Your task to perform on an android device: uninstall "TextNow: Call + Text Unlimited" Image 0: 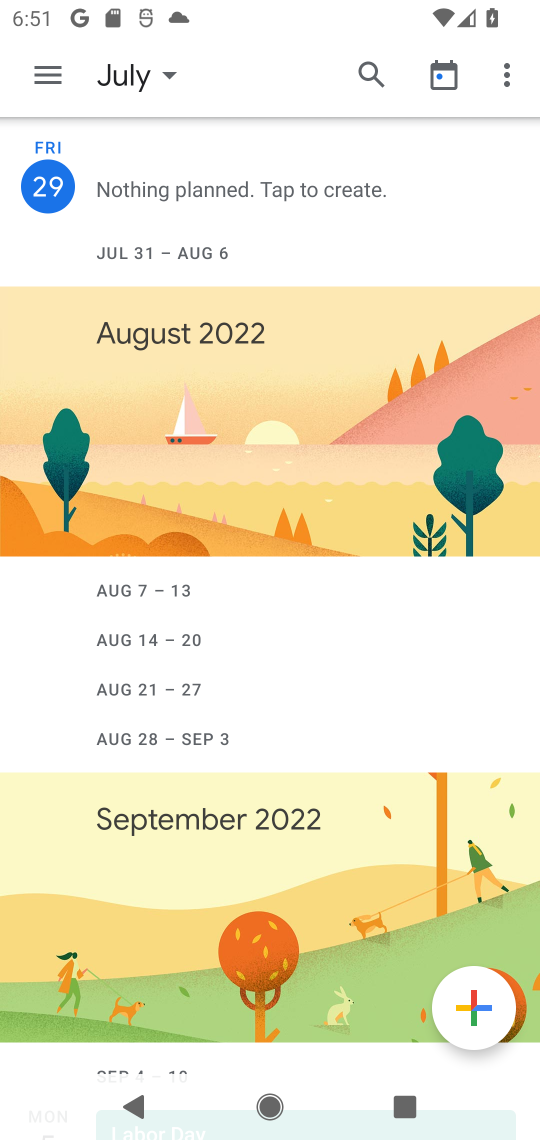
Step 0: press home button
Your task to perform on an android device: uninstall "TextNow: Call + Text Unlimited" Image 1: 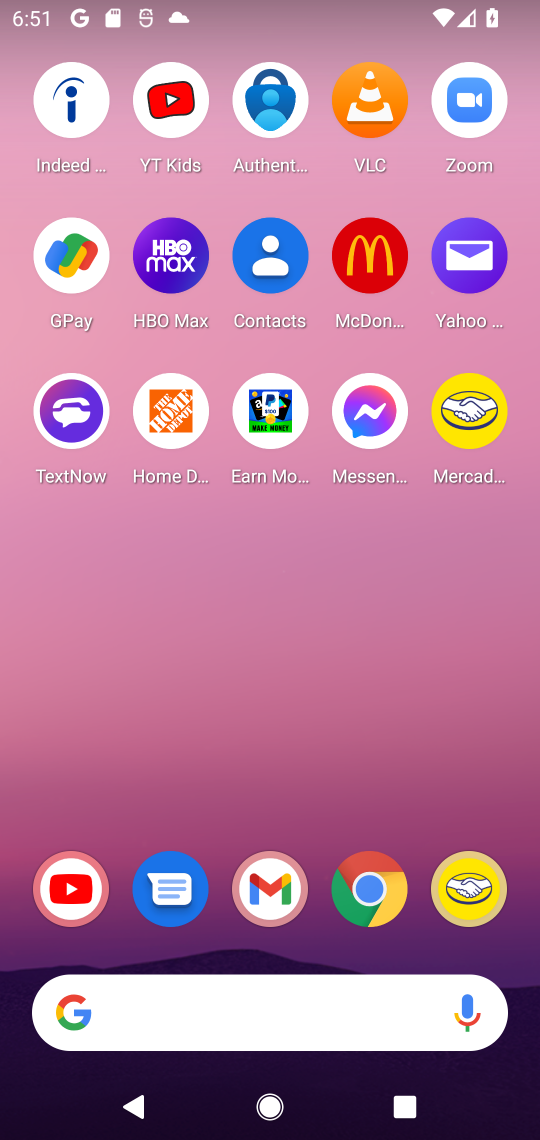
Step 1: press home button
Your task to perform on an android device: uninstall "TextNow: Call + Text Unlimited" Image 2: 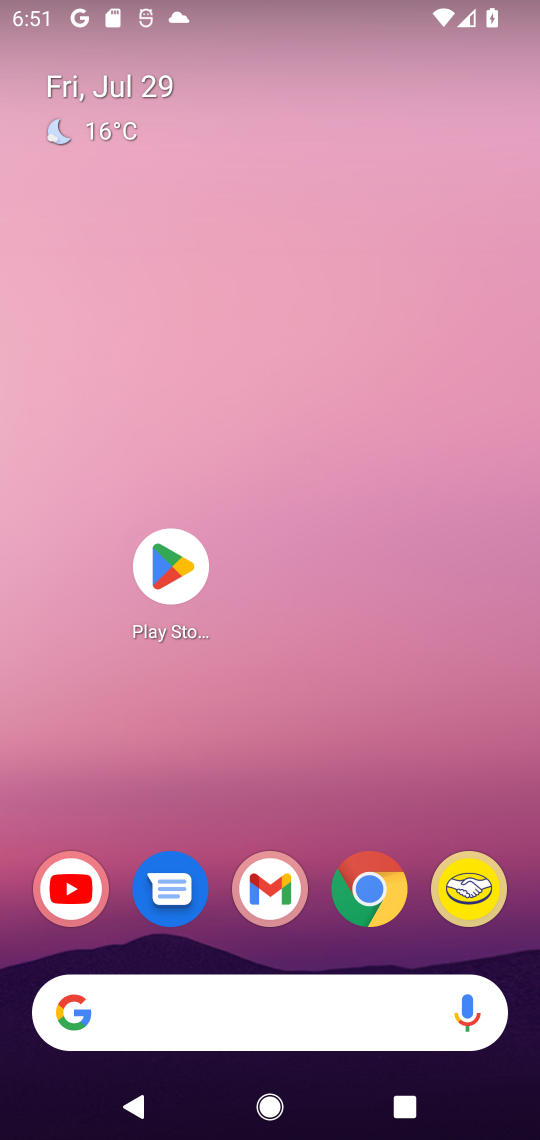
Step 2: click (169, 566)
Your task to perform on an android device: uninstall "TextNow: Call + Text Unlimited" Image 3: 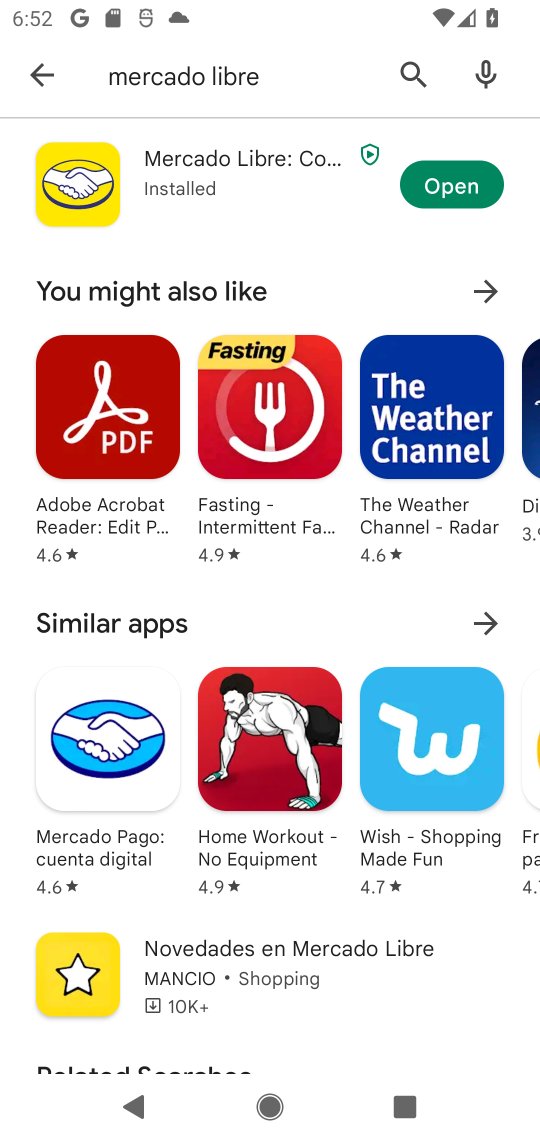
Step 3: click (415, 72)
Your task to perform on an android device: uninstall "TextNow: Call + Text Unlimited" Image 4: 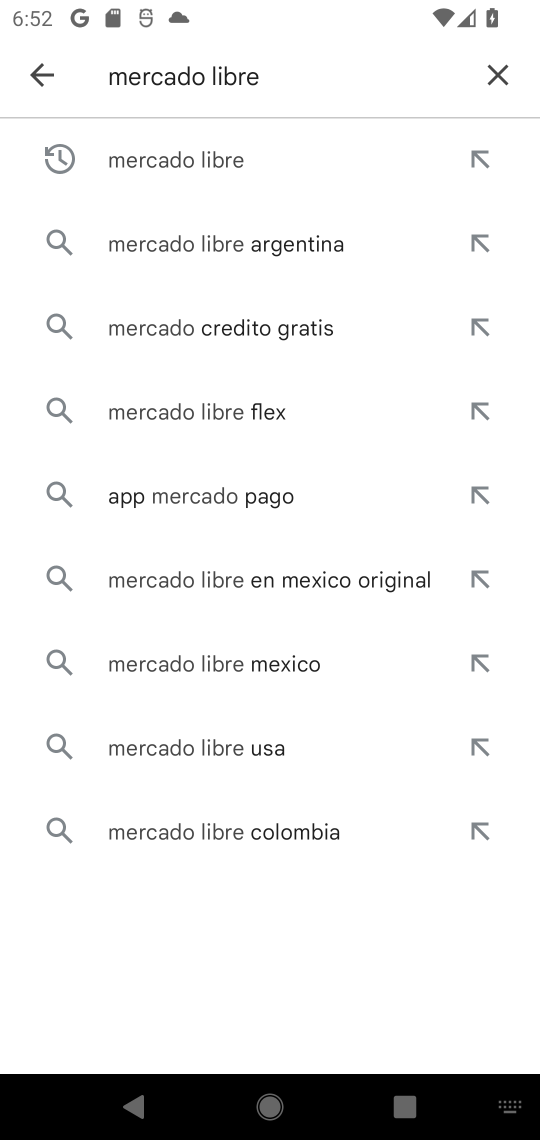
Step 4: click (500, 74)
Your task to perform on an android device: uninstall "TextNow: Call + Text Unlimited" Image 5: 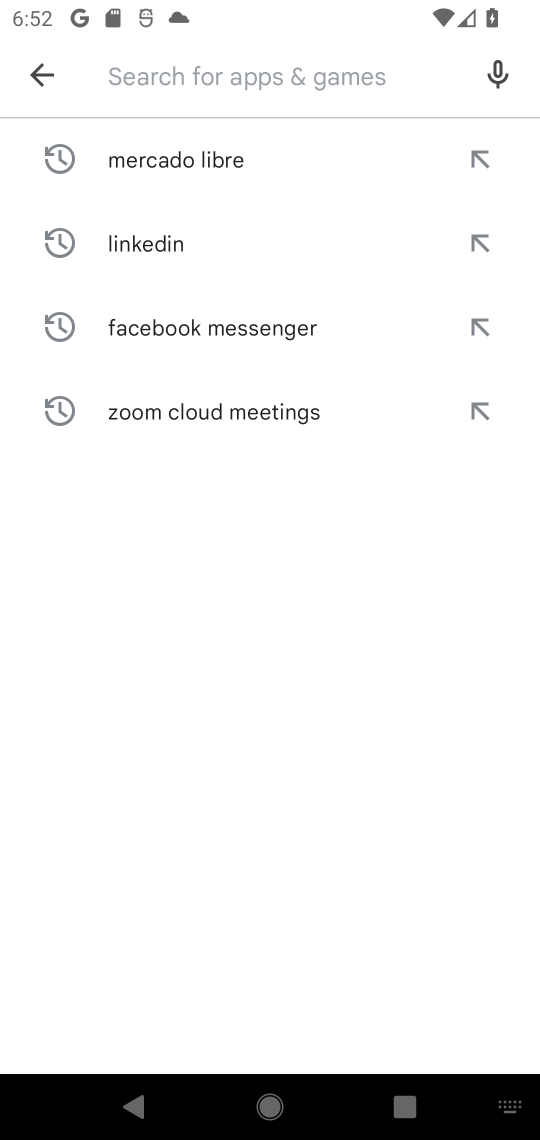
Step 5: type "TextNow: Call + Text Unlimited"
Your task to perform on an android device: uninstall "TextNow: Call + Text Unlimited" Image 6: 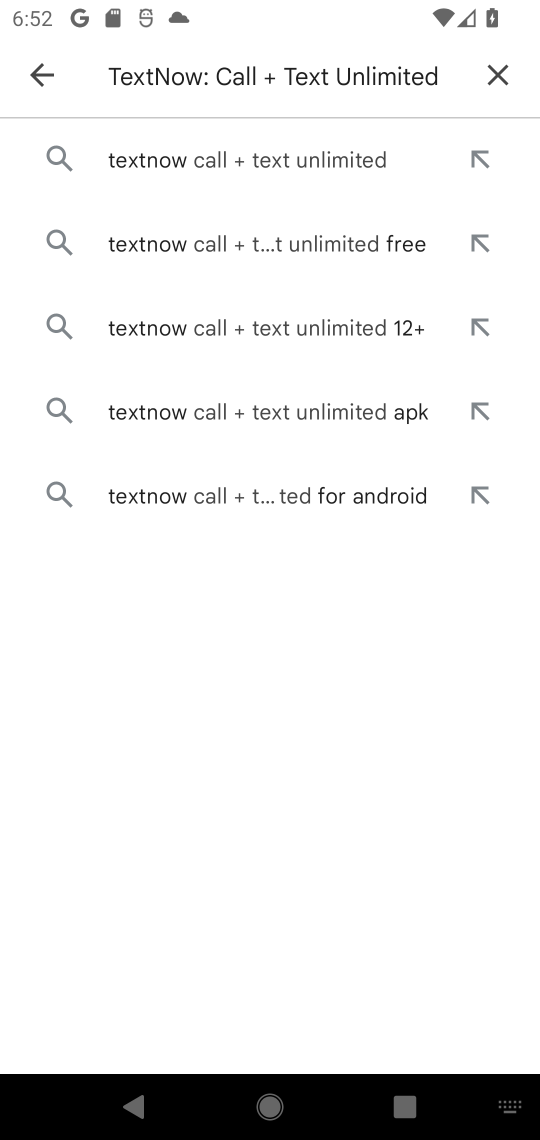
Step 6: click (297, 152)
Your task to perform on an android device: uninstall "TextNow: Call + Text Unlimited" Image 7: 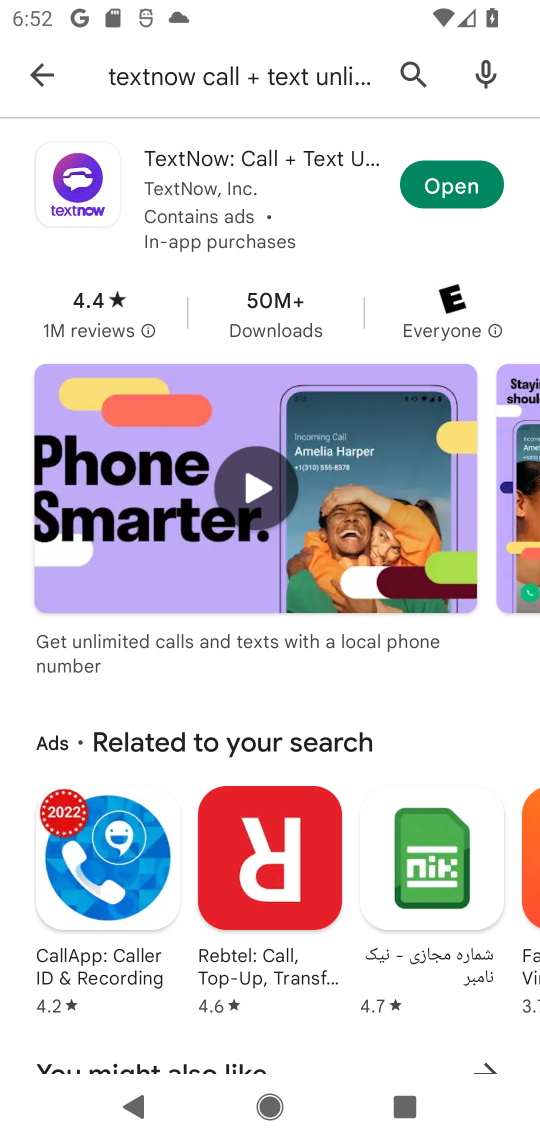
Step 7: click (93, 175)
Your task to perform on an android device: uninstall "TextNow: Call + Text Unlimited" Image 8: 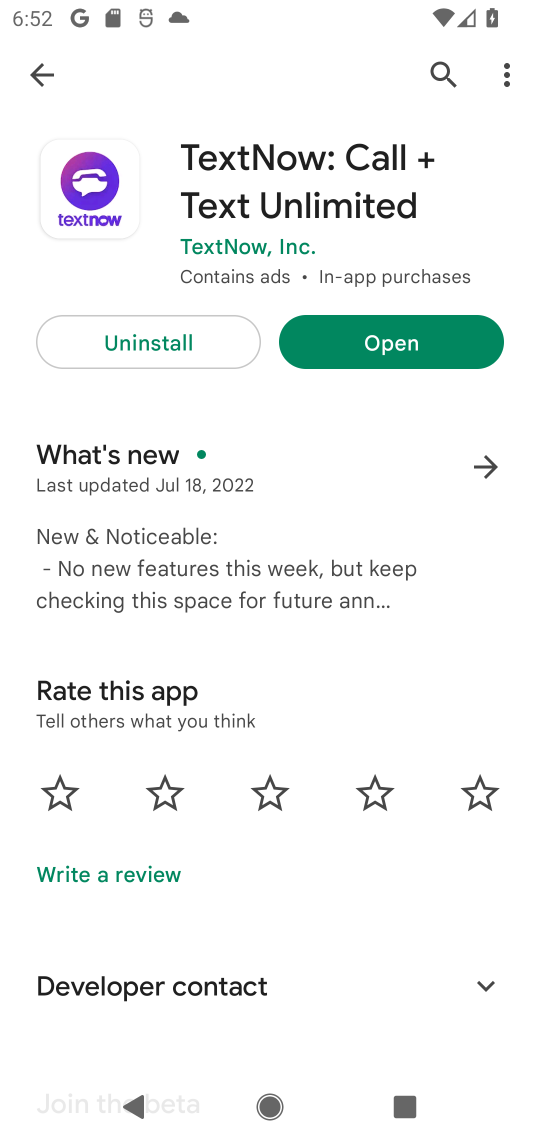
Step 8: click (186, 340)
Your task to perform on an android device: uninstall "TextNow: Call + Text Unlimited" Image 9: 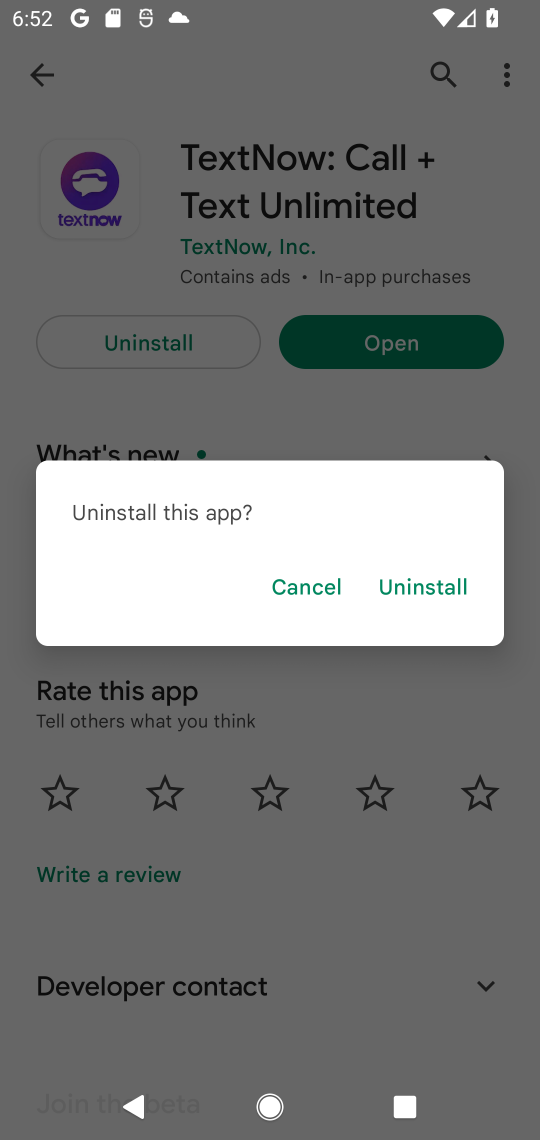
Step 9: click (395, 587)
Your task to perform on an android device: uninstall "TextNow: Call + Text Unlimited" Image 10: 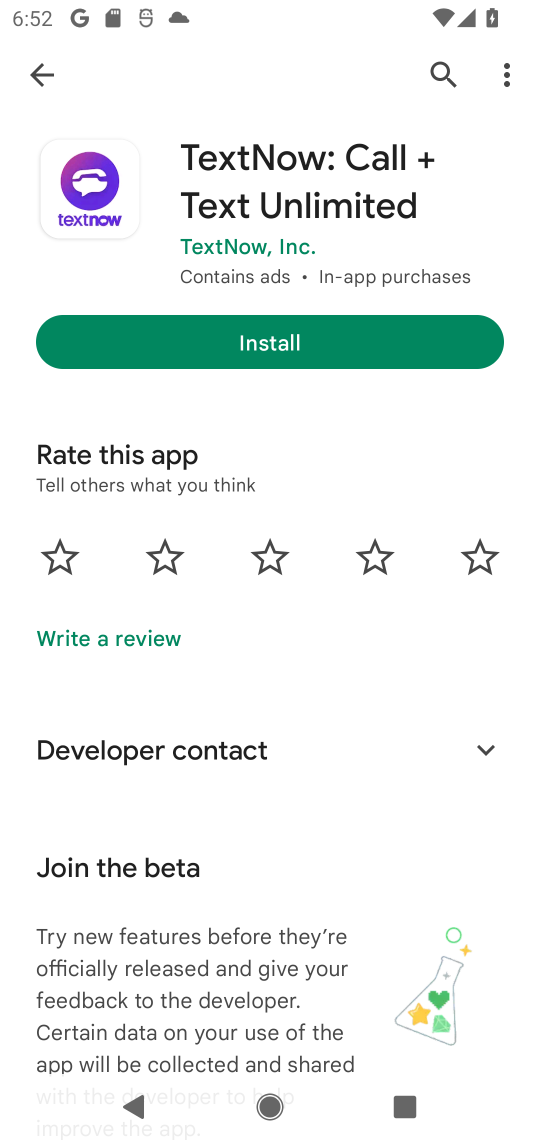
Step 10: task complete